Your task to perform on an android device: Search for sushi restaurants on Maps Image 0: 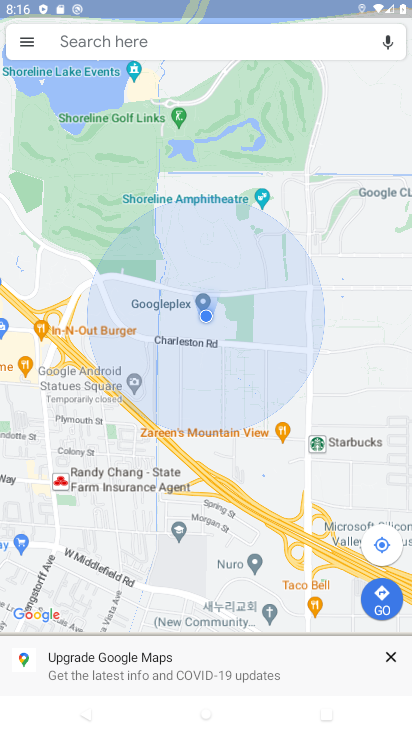
Step 0: click (215, 44)
Your task to perform on an android device: Search for sushi restaurants on Maps Image 1: 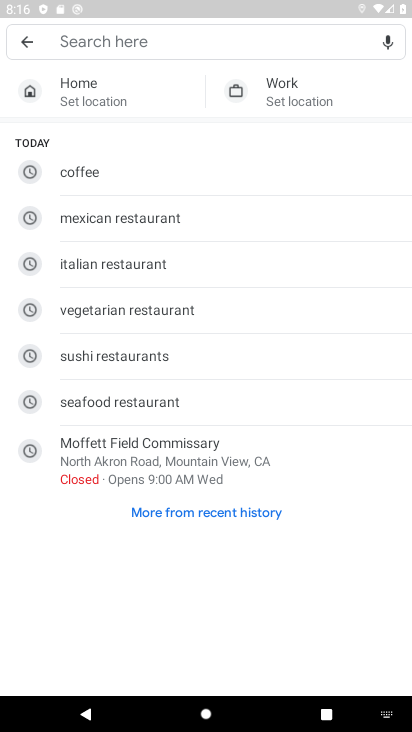
Step 1: type "sushi restaurants"
Your task to perform on an android device: Search for sushi restaurants on Maps Image 2: 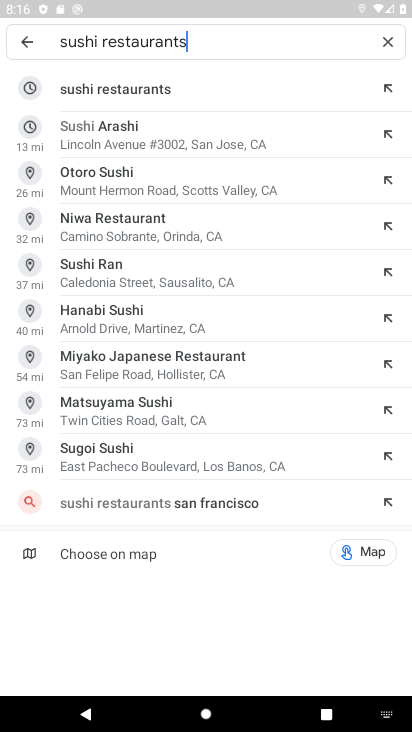
Step 2: click (243, 91)
Your task to perform on an android device: Search for sushi restaurants on Maps Image 3: 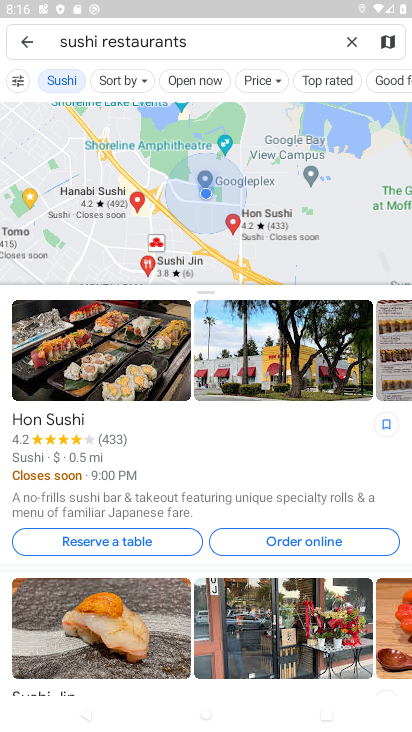
Step 3: task complete